Your task to perform on an android device: Go to Yahoo.com Image 0: 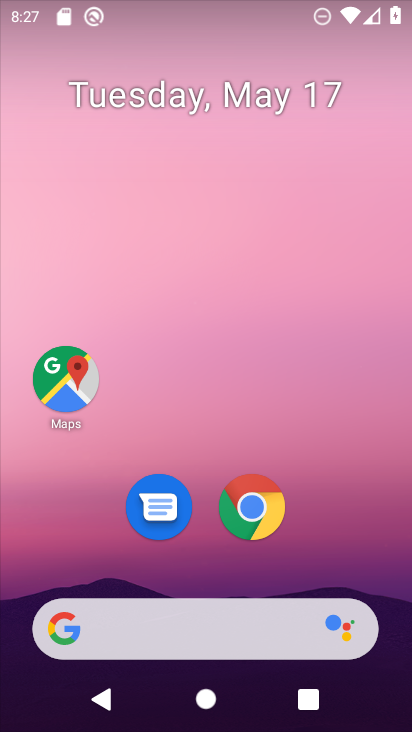
Step 0: click (251, 521)
Your task to perform on an android device: Go to Yahoo.com Image 1: 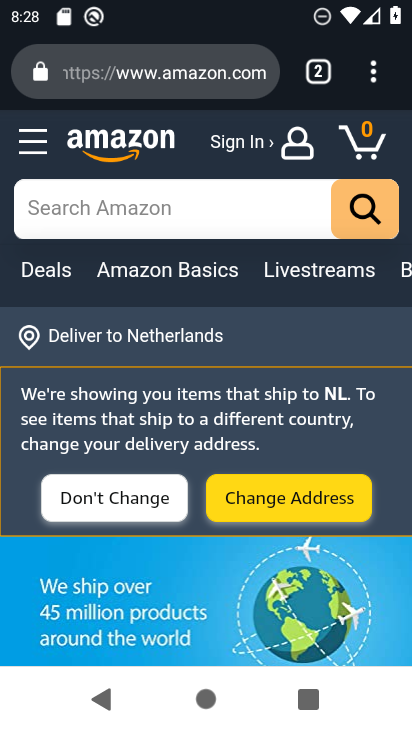
Step 1: click (126, 75)
Your task to perform on an android device: Go to Yahoo.com Image 2: 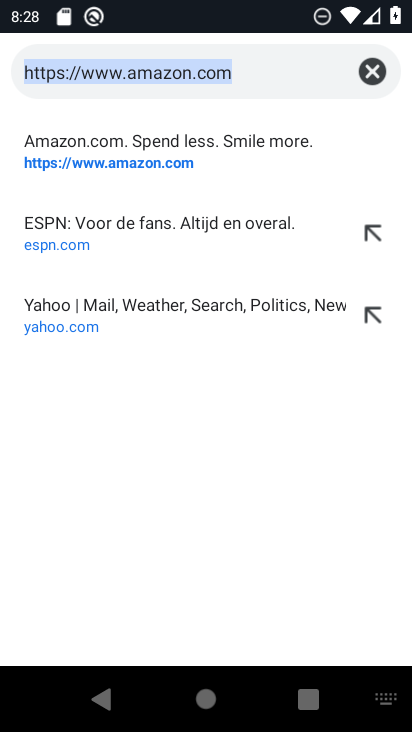
Step 2: click (44, 326)
Your task to perform on an android device: Go to Yahoo.com Image 3: 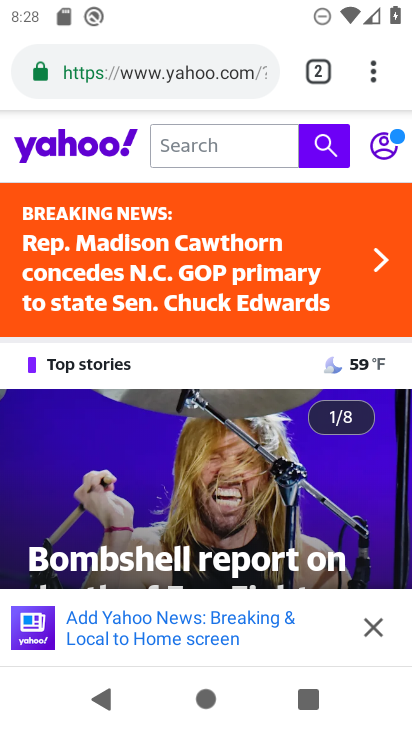
Step 3: task complete